Your task to perform on an android device: Open Google Chrome and open the bookmarks view Image 0: 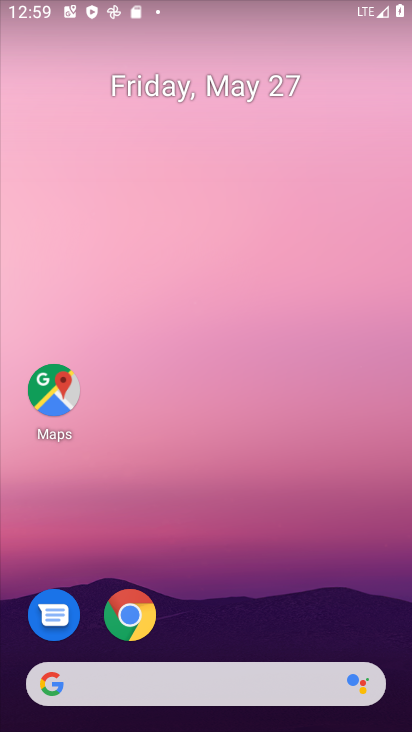
Step 0: drag from (174, 661) to (204, 52)
Your task to perform on an android device: Open Google Chrome and open the bookmarks view Image 1: 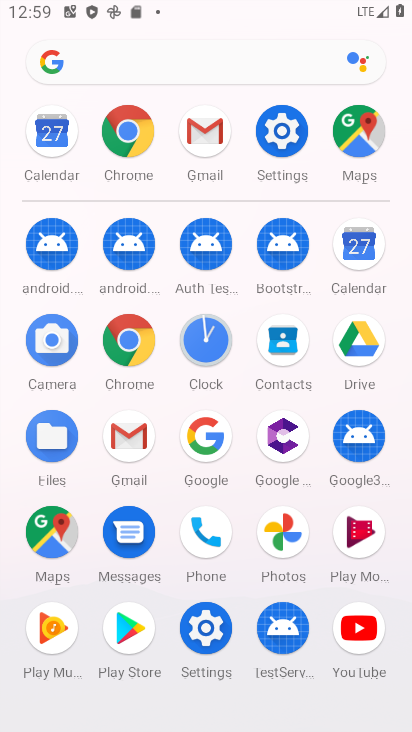
Step 1: click (122, 327)
Your task to perform on an android device: Open Google Chrome and open the bookmarks view Image 2: 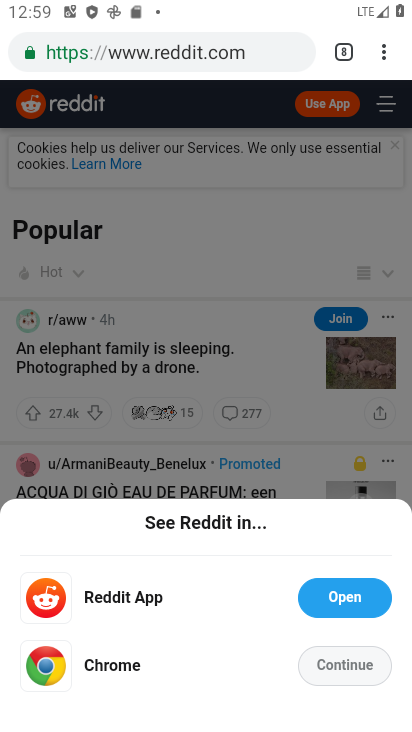
Step 2: task complete